Your task to perform on an android device: What's on my calendar tomorrow? Image 0: 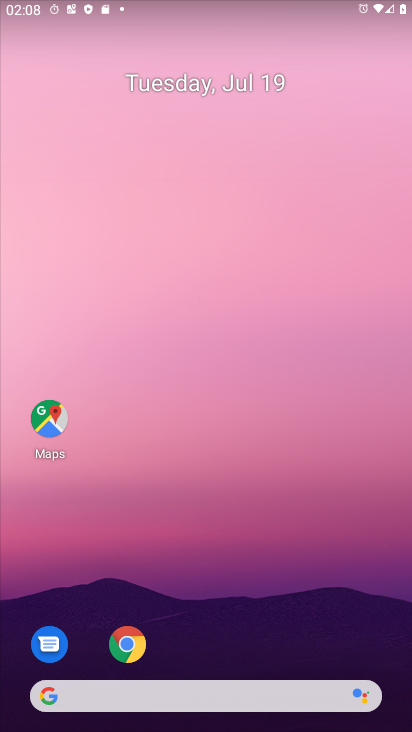
Step 0: drag from (214, 720) to (251, 128)
Your task to perform on an android device: What's on my calendar tomorrow? Image 1: 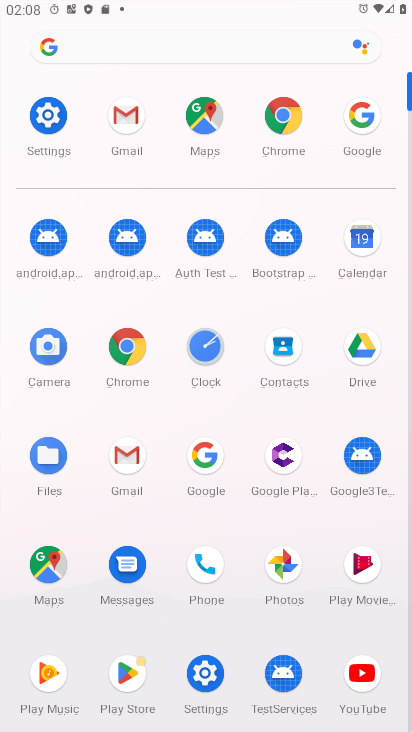
Step 1: click (358, 234)
Your task to perform on an android device: What's on my calendar tomorrow? Image 2: 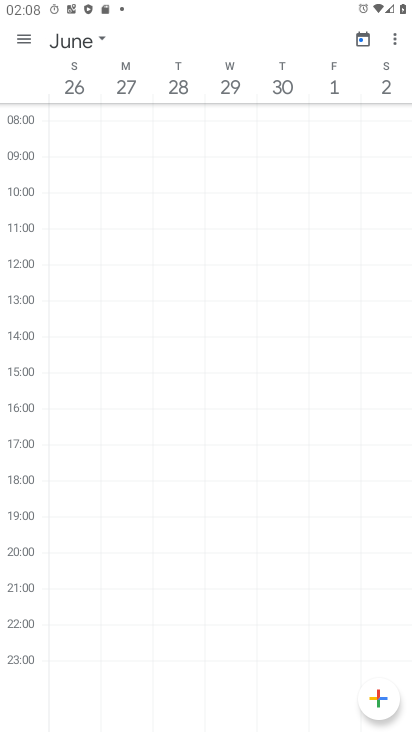
Step 2: click (100, 38)
Your task to perform on an android device: What's on my calendar tomorrow? Image 3: 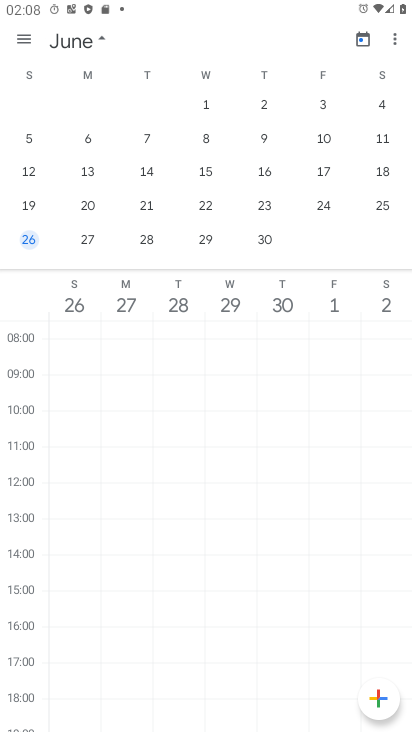
Step 3: drag from (326, 147) to (61, 140)
Your task to perform on an android device: What's on my calendar tomorrow? Image 4: 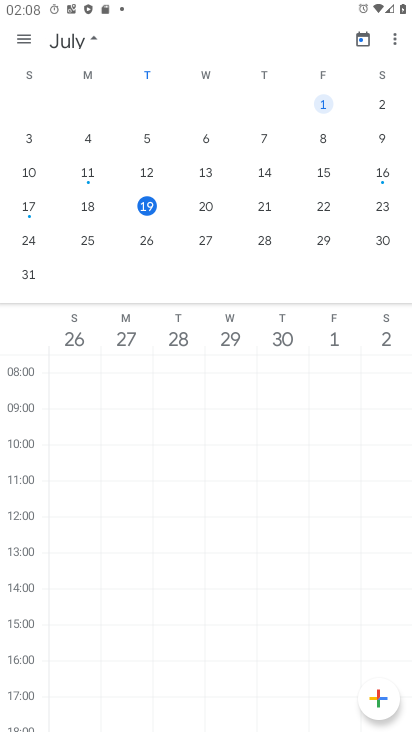
Step 4: click (210, 203)
Your task to perform on an android device: What's on my calendar tomorrow? Image 5: 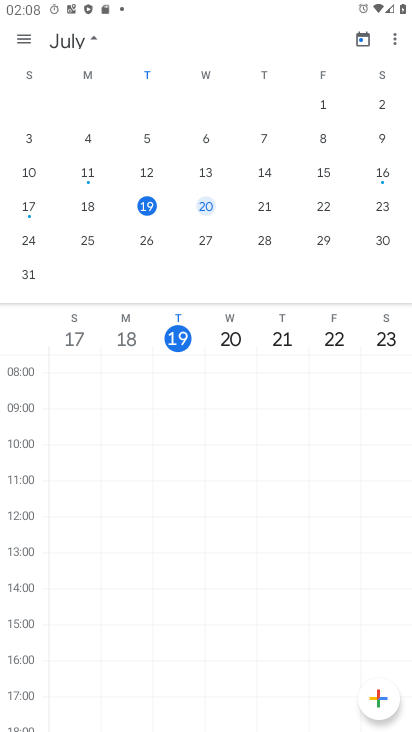
Step 5: click (210, 202)
Your task to perform on an android device: What's on my calendar tomorrow? Image 6: 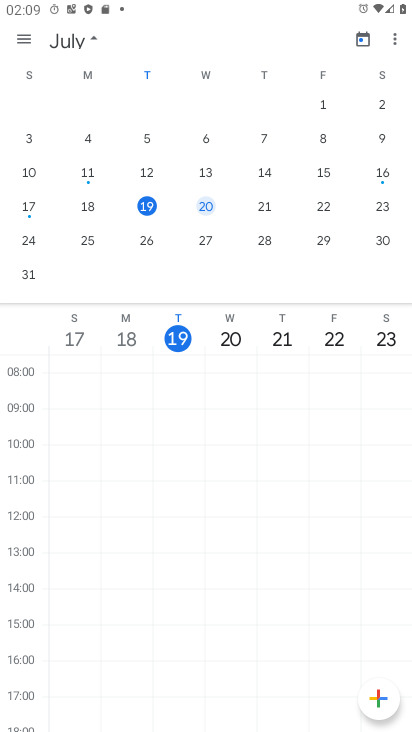
Step 6: click (232, 335)
Your task to perform on an android device: What's on my calendar tomorrow? Image 7: 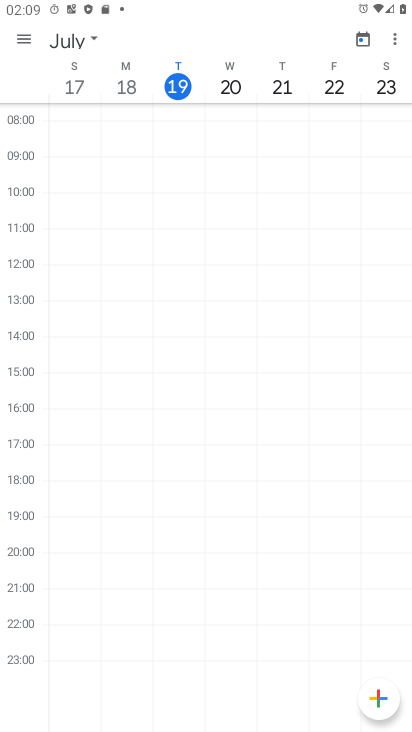
Step 7: click (227, 80)
Your task to perform on an android device: What's on my calendar tomorrow? Image 8: 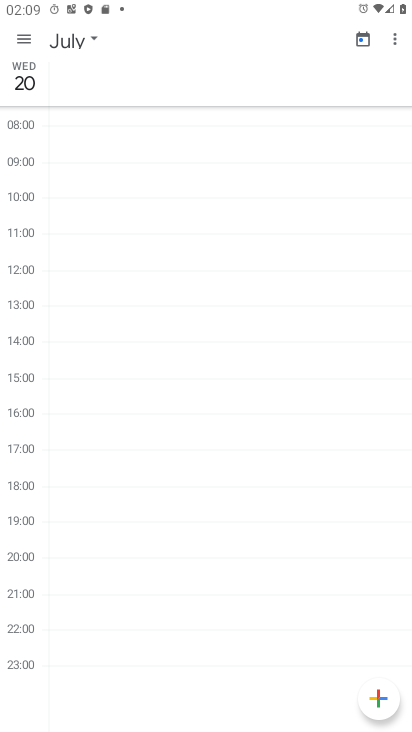
Step 8: task complete